Your task to perform on an android device: Open privacy settings Image 0: 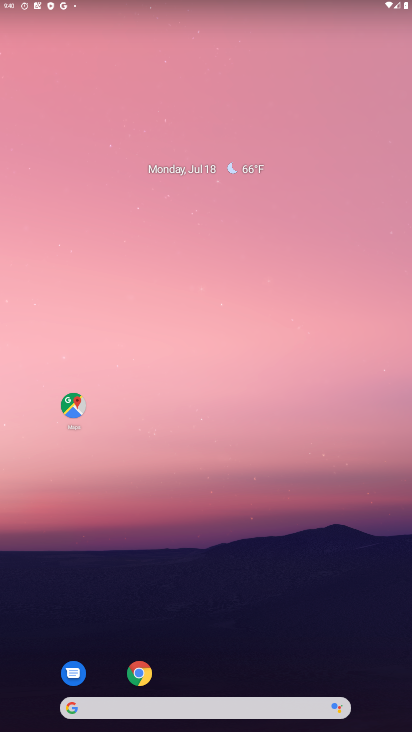
Step 0: drag from (200, 668) to (207, 159)
Your task to perform on an android device: Open privacy settings Image 1: 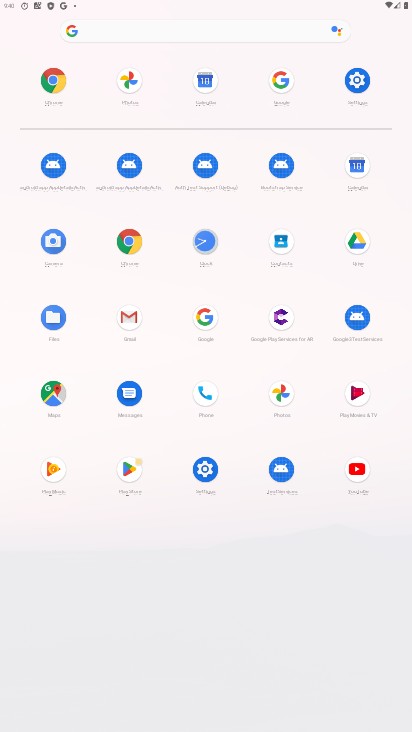
Step 1: click (358, 82)
Your task to perform on an android device: Open privacy settings Image 2: 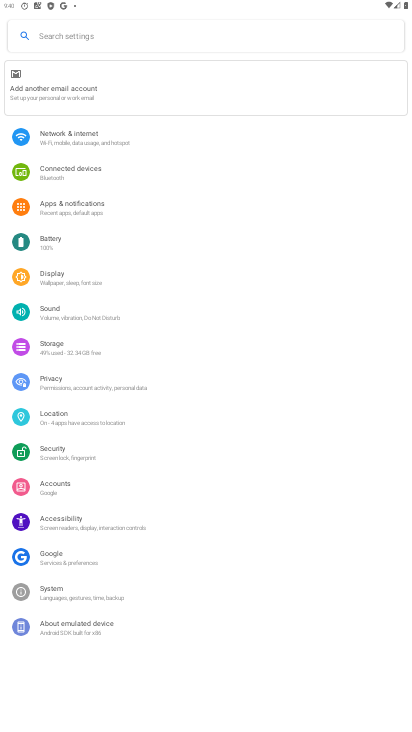
Step 2: click (61, 385)
Your task to perform on an android device: Open privacy settings Image 3: 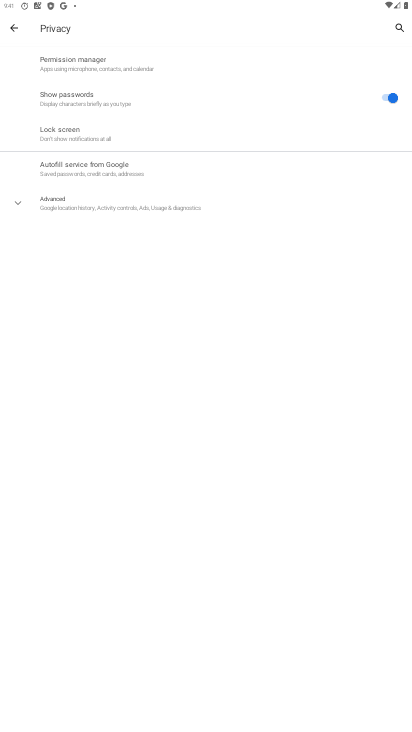
Step 3: task complete